Your task to perform on an android device: show emergency info Image 0: 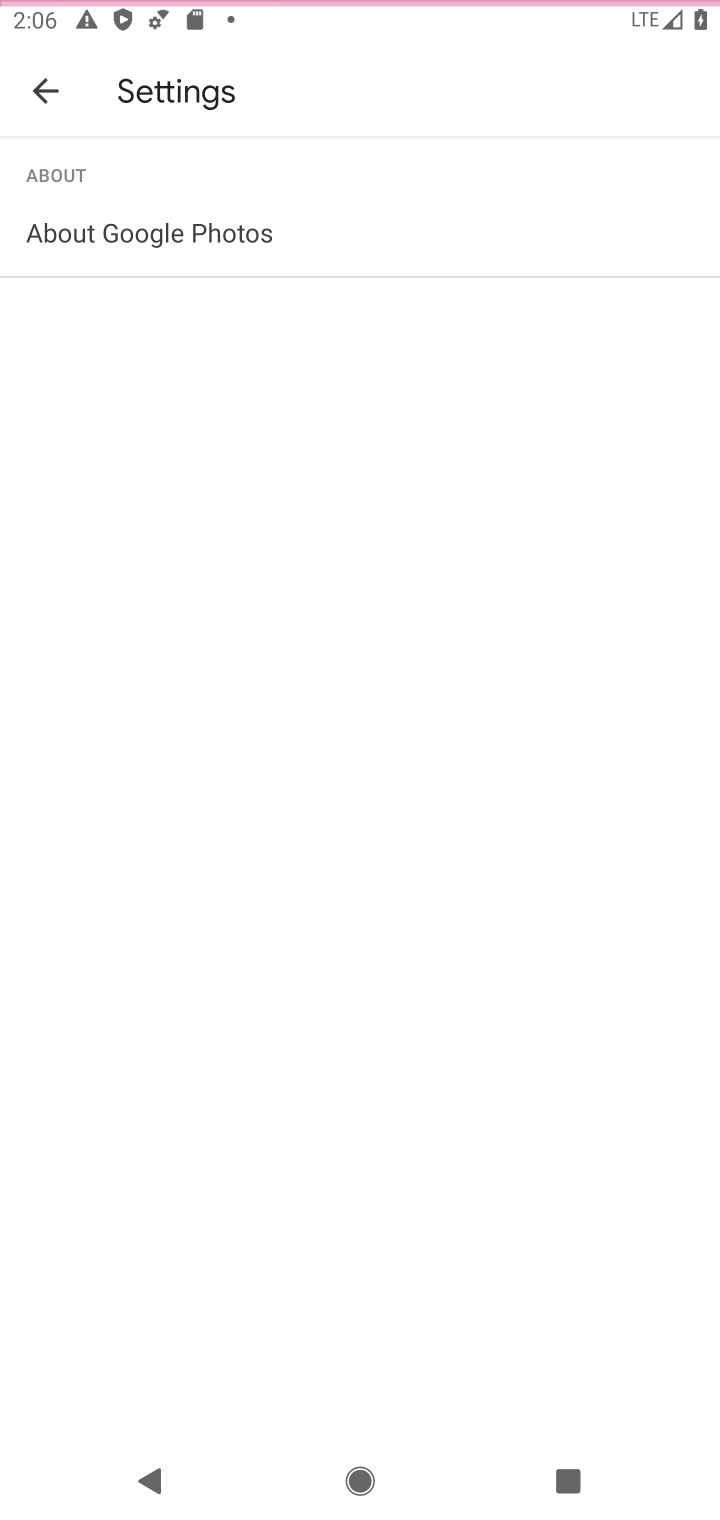
Step 0: drag from (411, 247) to (159, 9)
Your task to perform on an android device: show emergency info Image 1: 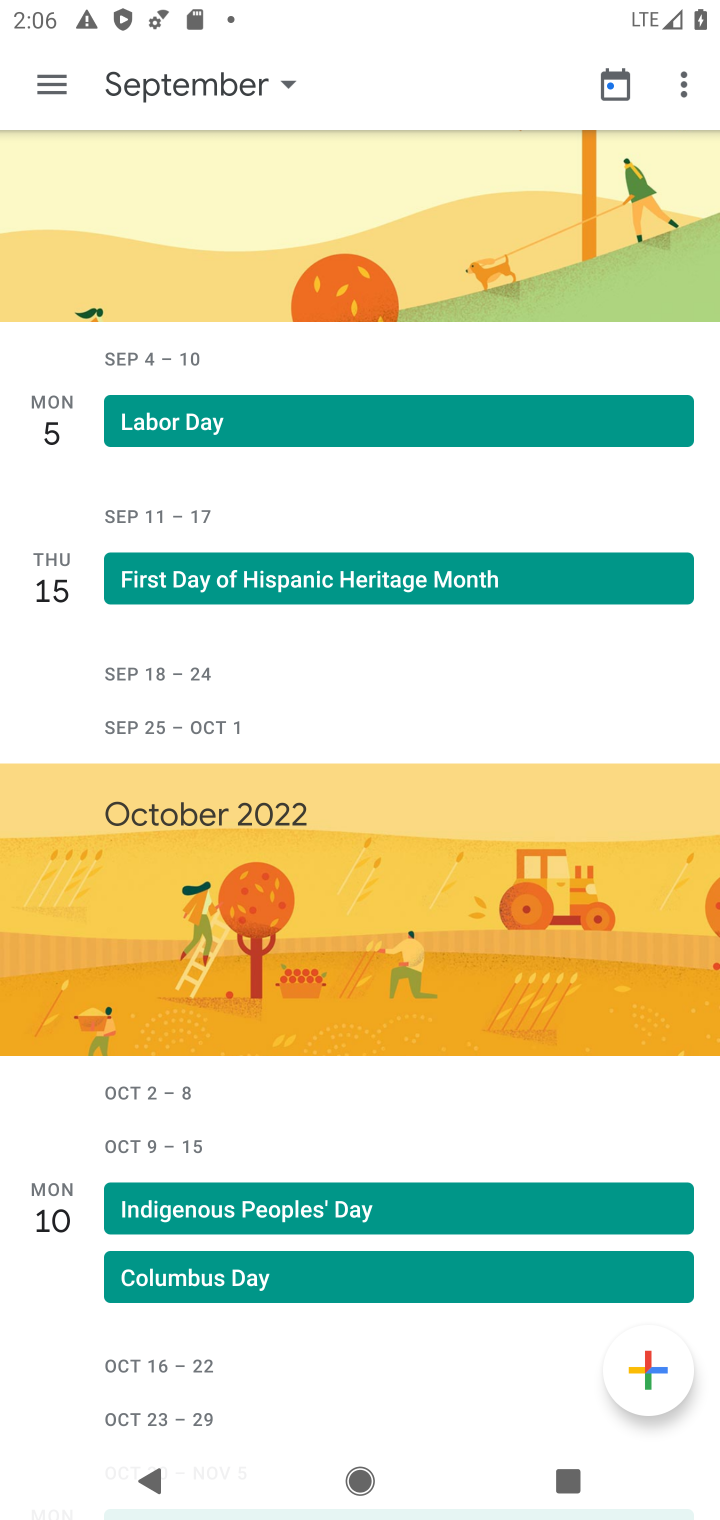
Step 1: press back button
Your task to perform on an android device: show emergency info Image 2: 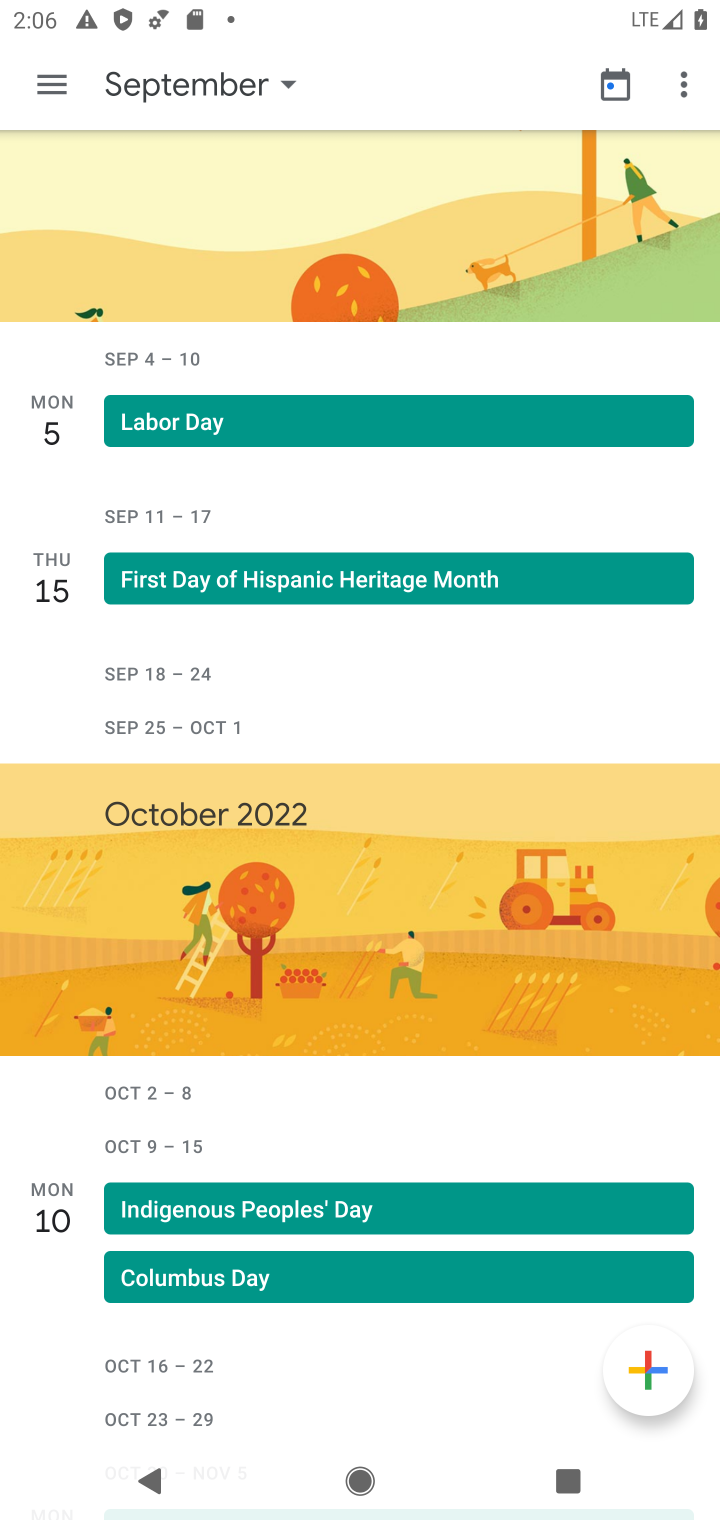
Step 2: press back button
Your task to perform on an android device: show emergency info Image 3: 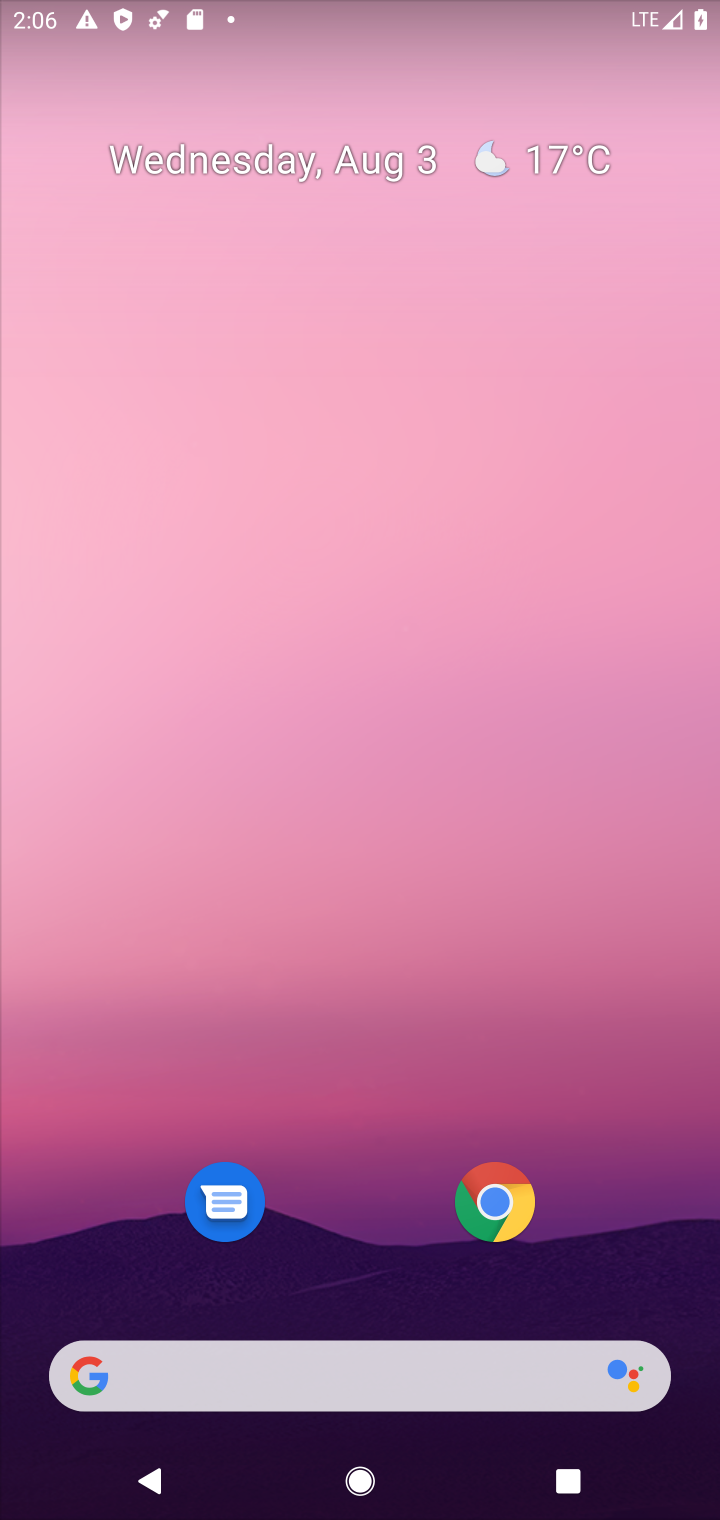
Step 3: press back button
Your task to perform on an android device: show emergency info Image 4: 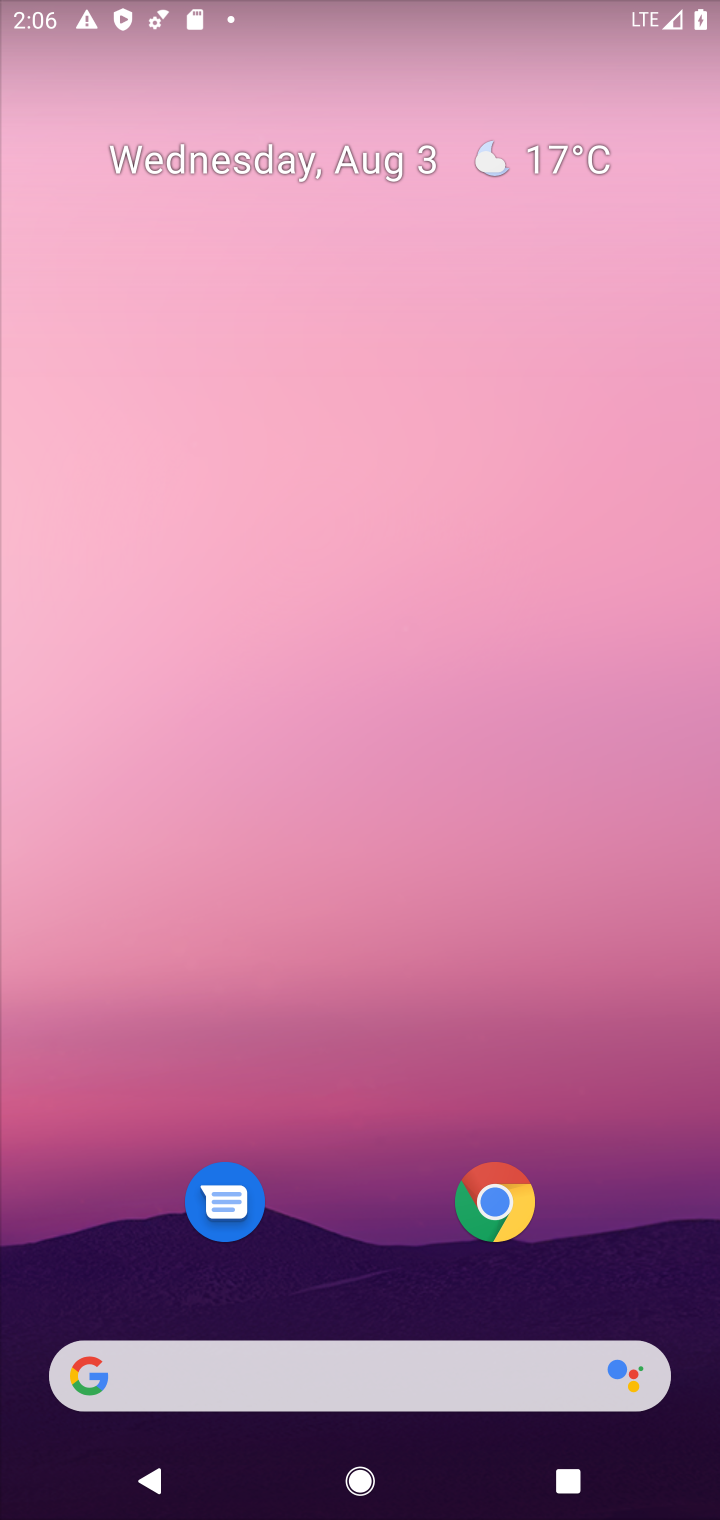
Step 4: drag from (302, 1154) to (331, 64)
Your task to perform on an android device: show emergency info Image 5: 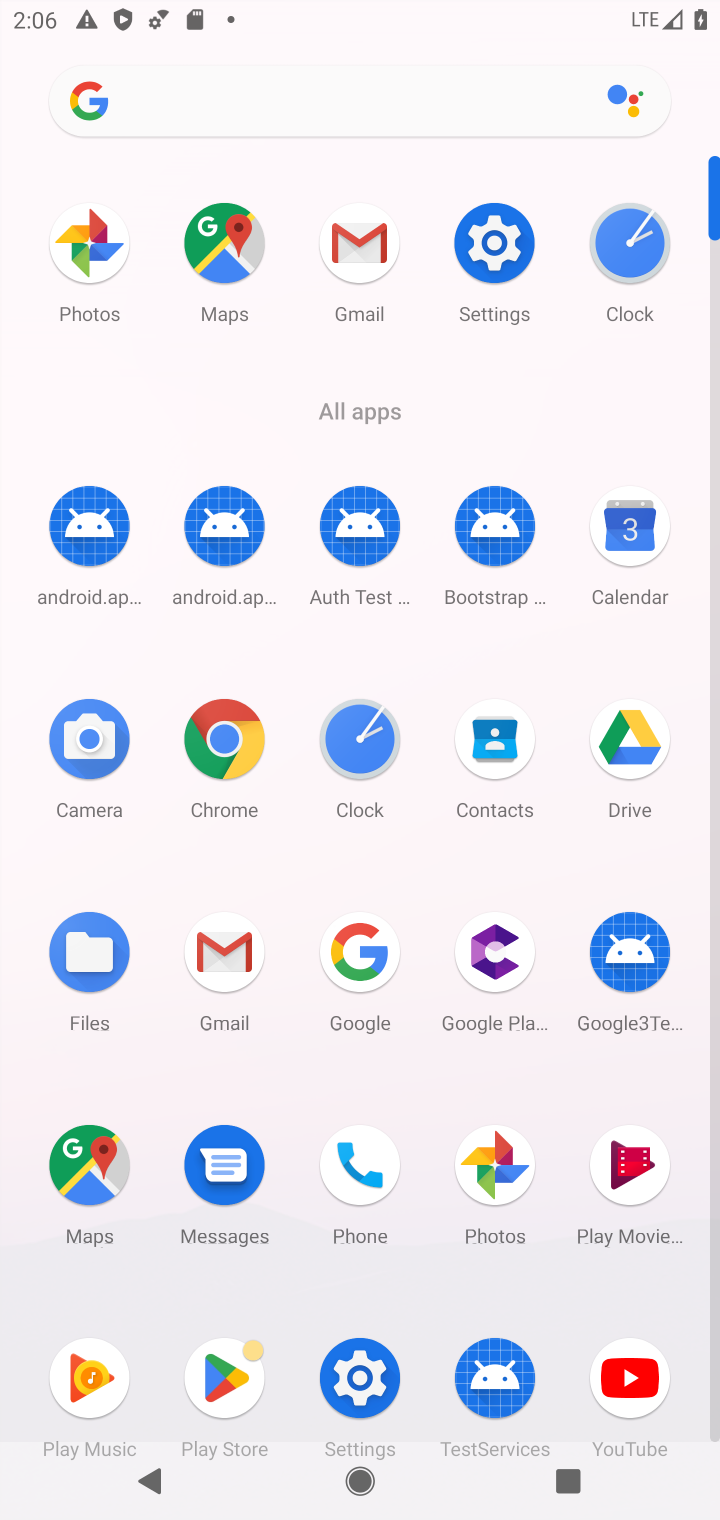
Step 5: click (486, 252)
Your task to perform on an android device: show emergency info Image 6: 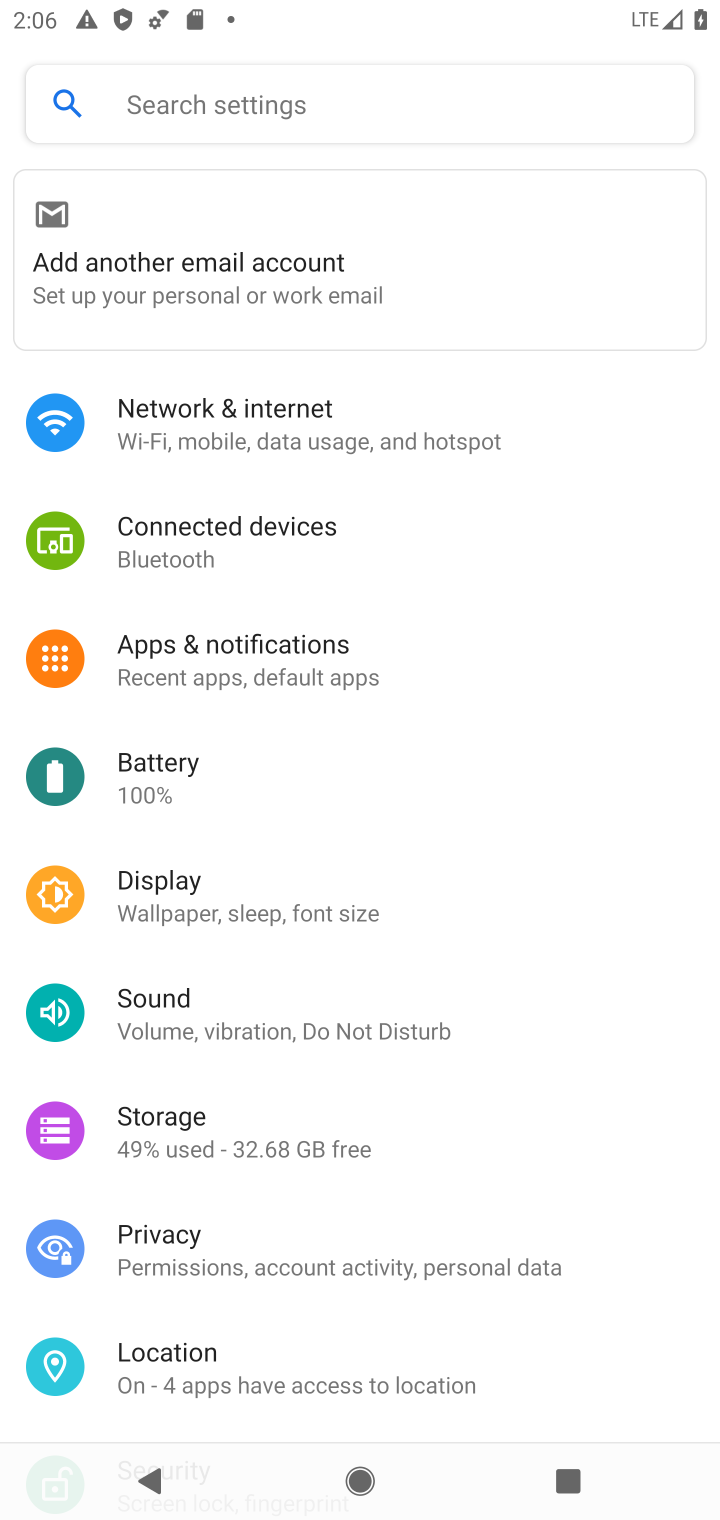
Step 6: drag from (243, 1333) to (460, 58)
Your task to perform on an android device: show emergency info Image 7: 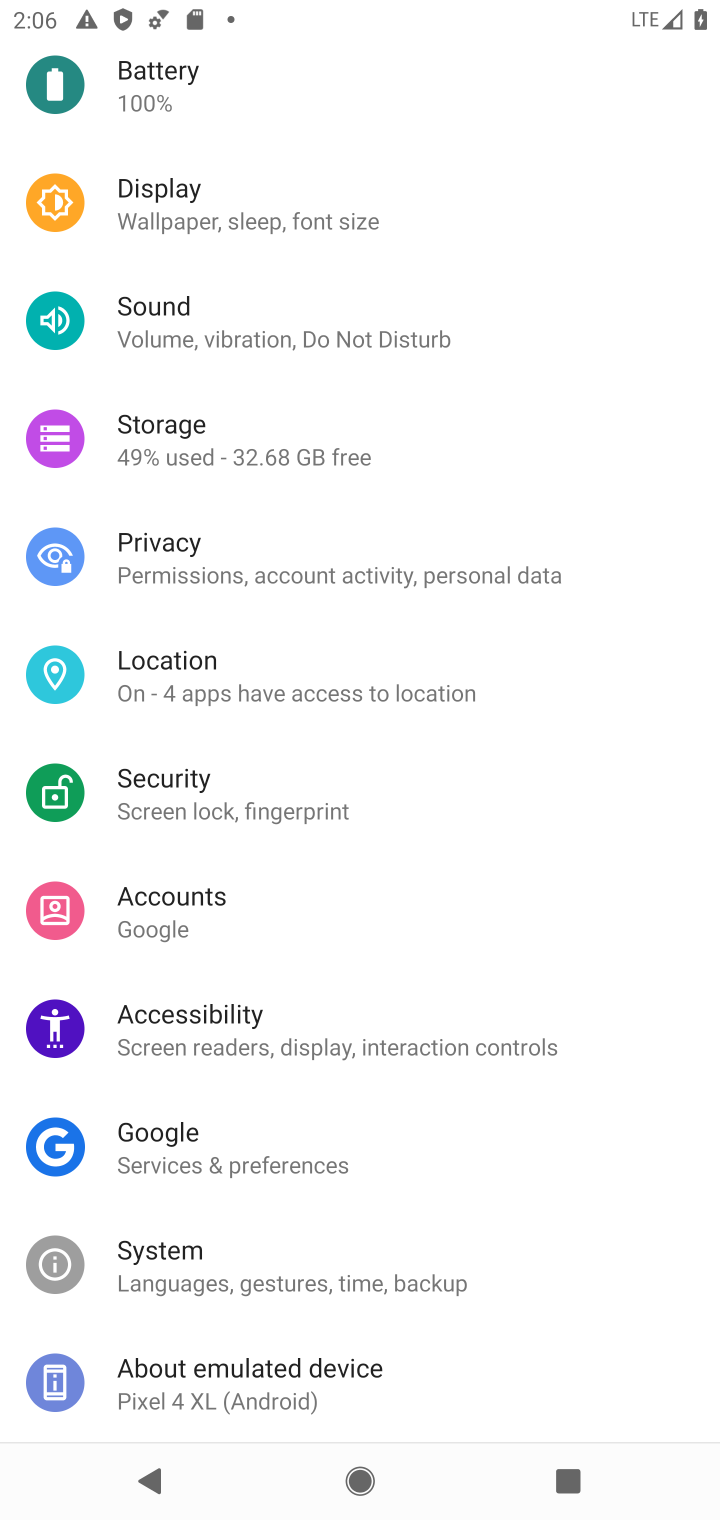
Step 7: click (294, 1368)
Your task to perform on an android device: show emergency info Image 8: 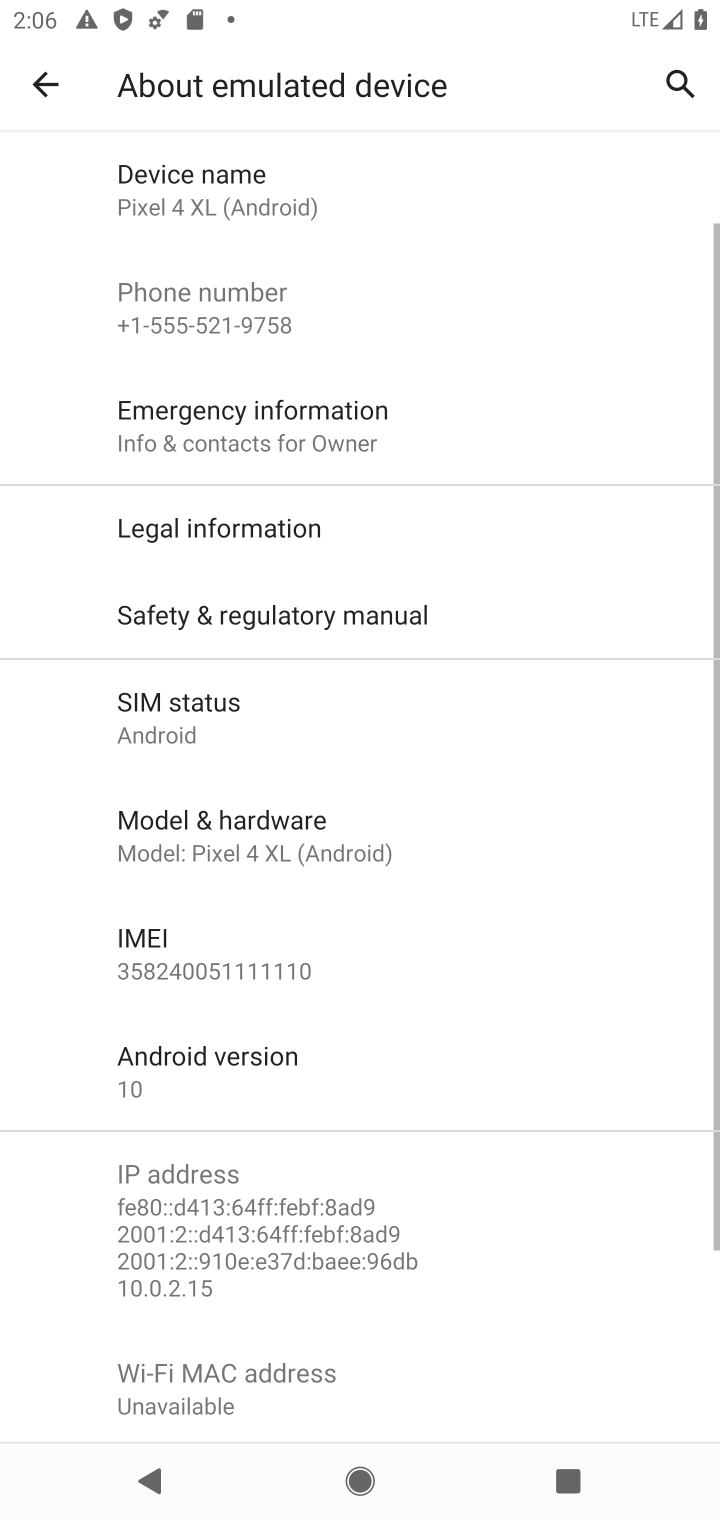
Step 8: click (243, 408)
Your task to perform on an android device: show emergency info Image 9: 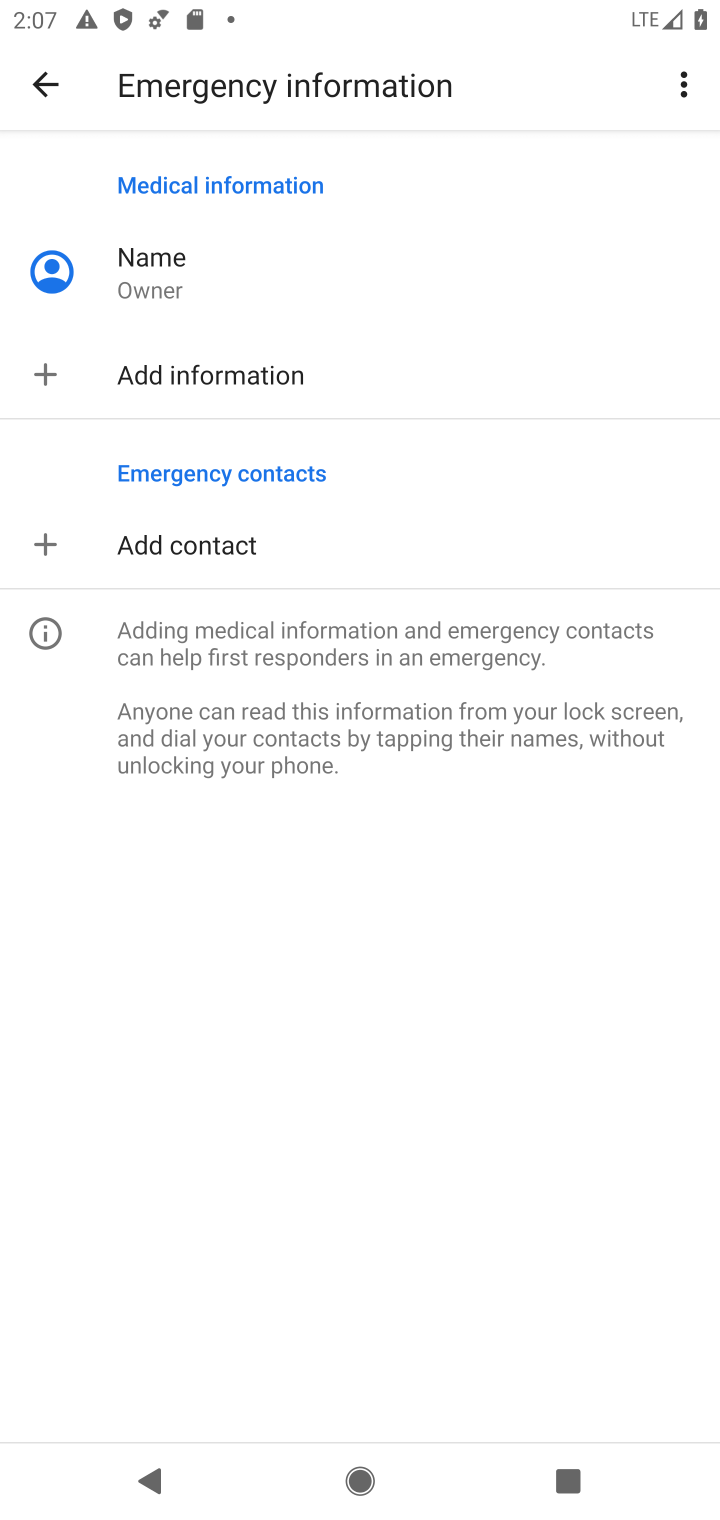
Step 9: task complete